Your task to perform on an android device: Go to location settings Image 0: 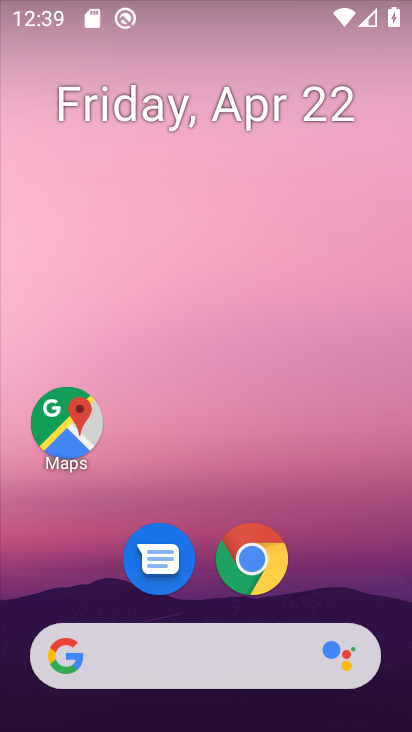
Step 0: drag from (206, 596) to (235, 122)
Your task to perform on an android device: Go to location settings Image 1: 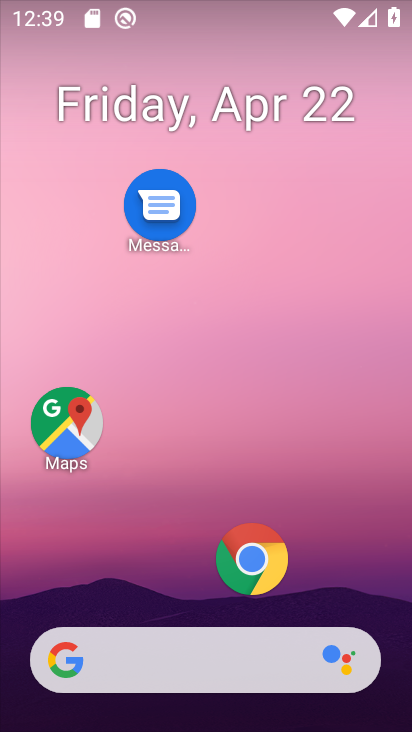
Step 1: drag from (332, 597) to (353, 86)
Your task to perform on an android device: Go to location settings Image 2: 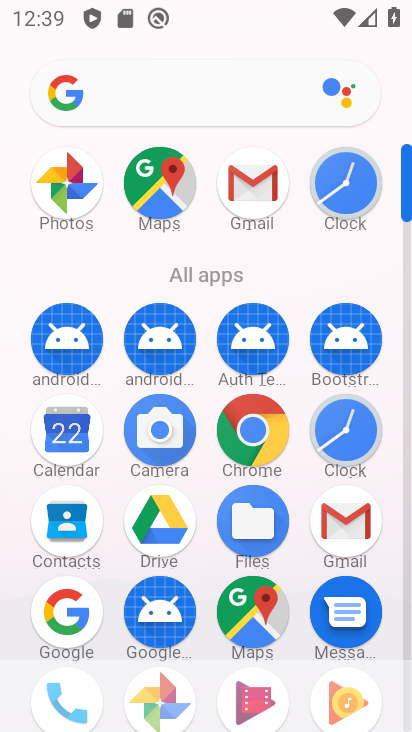
Step 2: drag from (206, 562) to (221, 116)
Your task to perform on an android device: Go to location settings Image 3: 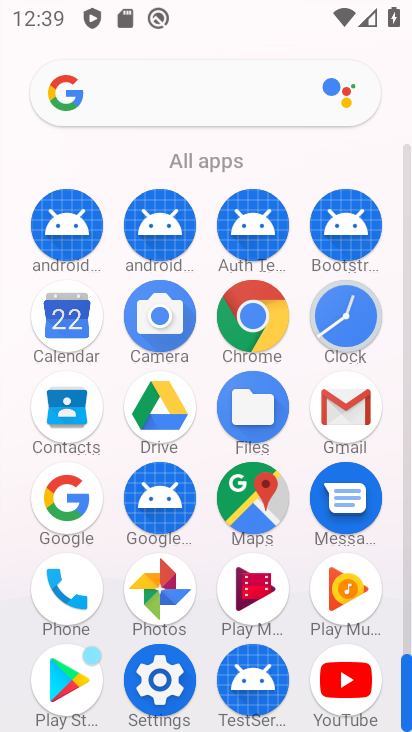
Step 3: click (158, 672)
Your task to perform on an android device: Go to location settings Image 4: 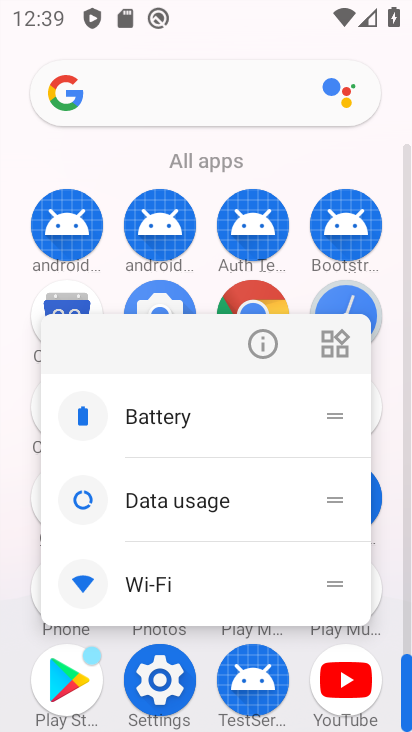
Step 4: click (252, 157)
Your task to perform on an android device: Go to location settings Image 5: 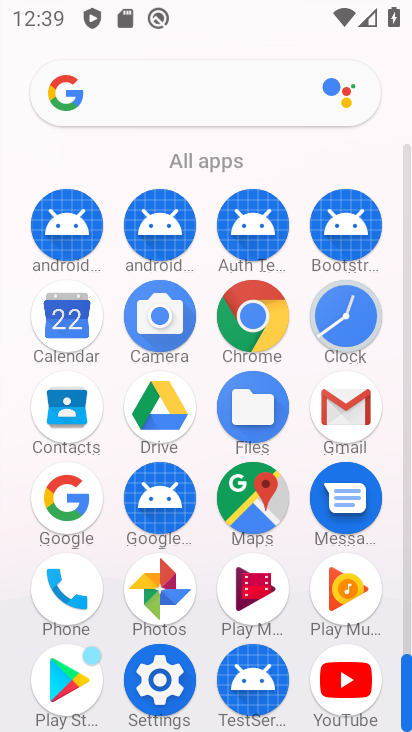
Step 5: click (256, 492)
Your task to perform on an android device: Go to location settings Image 6: 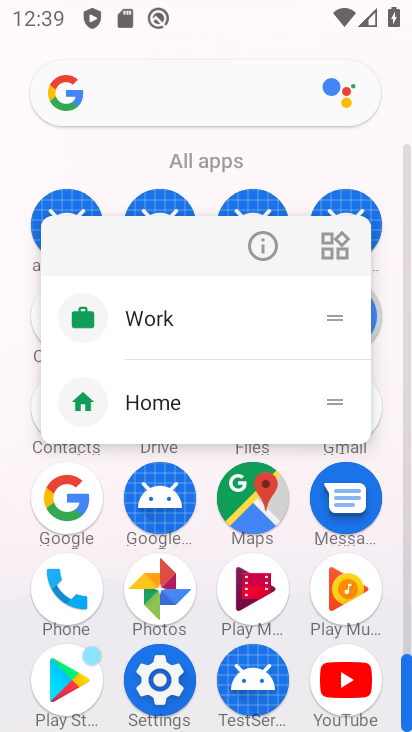
Step 6: click (253, 496)
Your task to perform on an android device: Go to location settings Image 7: 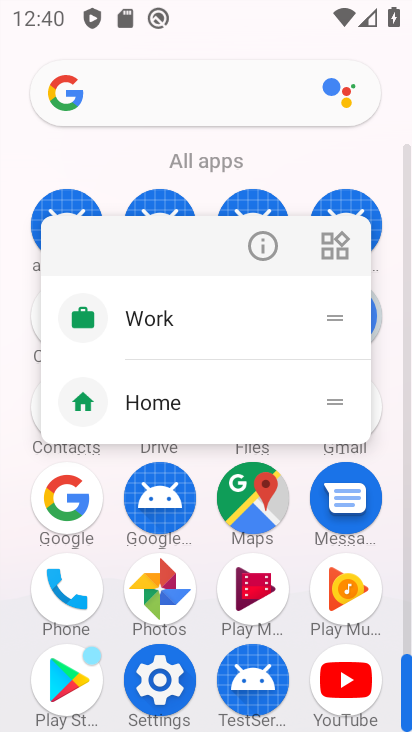
Step 7: click (253, 496)
Your task to perform on an android device: Go to location settings Image 8: 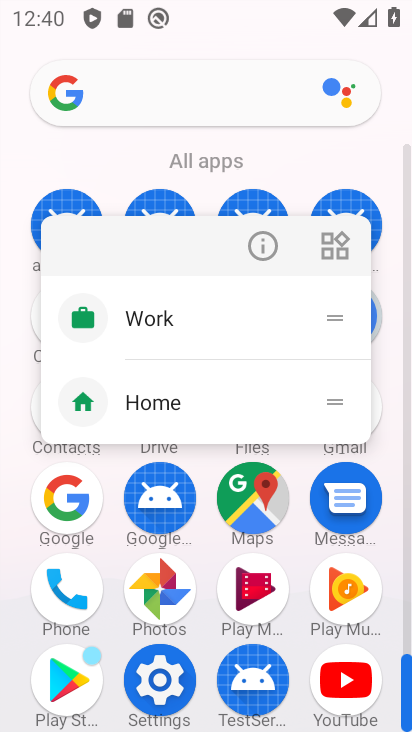
Step 8: click (253, 495)
Your task to perform on an android device: Go to location settings Image 9: 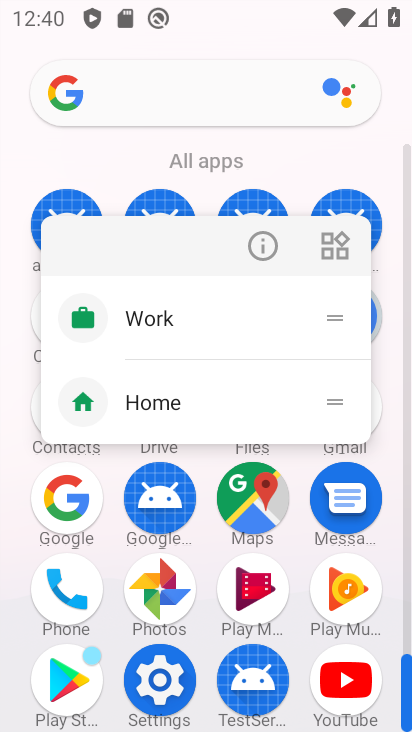
Step 9: click (388, 548)
Your task to perform on an android device: Go to location settings Image 10: 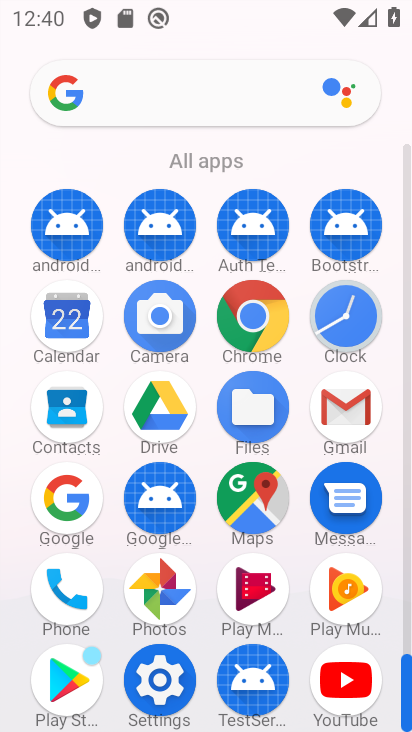
Step 10: click (253, 492)
Your task to perform on an android device: Go to location settings Image 11: 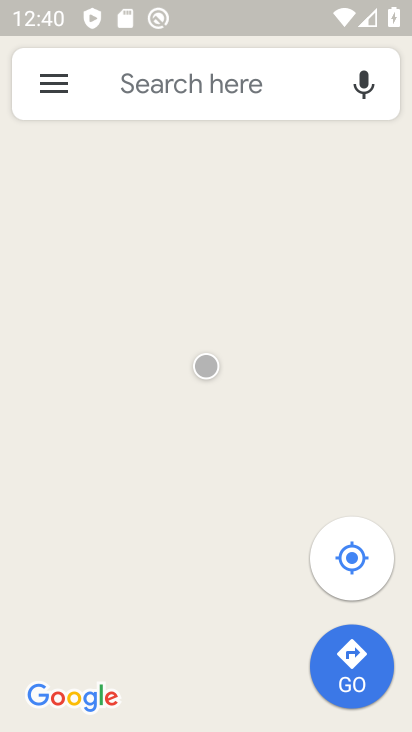
Step 11: click (47, 89)
Your task to perform on an android device: Go to location settings Image 12: 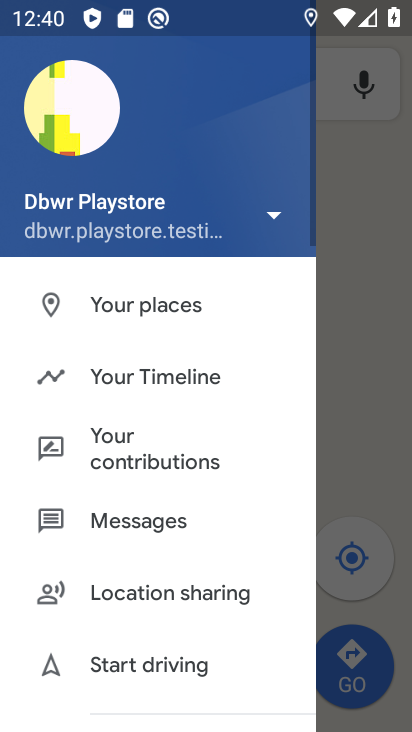
Step 12: drag from (148, 634) to (185, 143)
Your task to perform on an android device: Go to location settings Image 13: 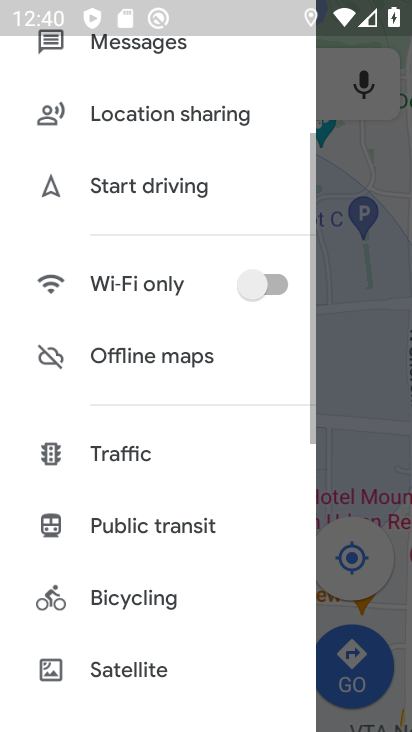
Step 13: drag from (133, 626) to (147, 151)
Your task to perform on an android device: Go to location settings Image 14: 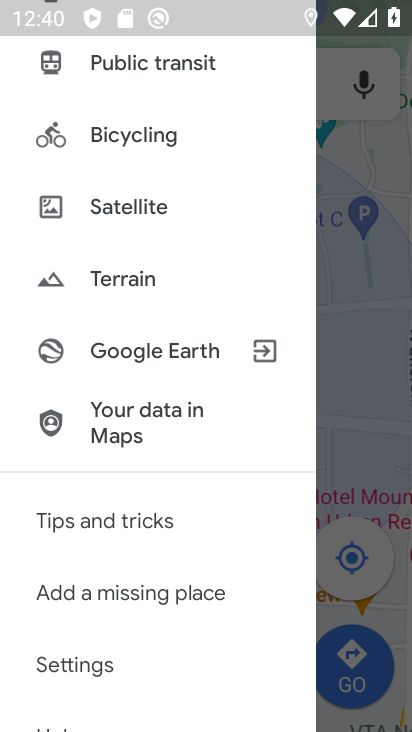
Step 14: click (127, 660)
Your task to perform on an android device: Go to location settings Image 15: 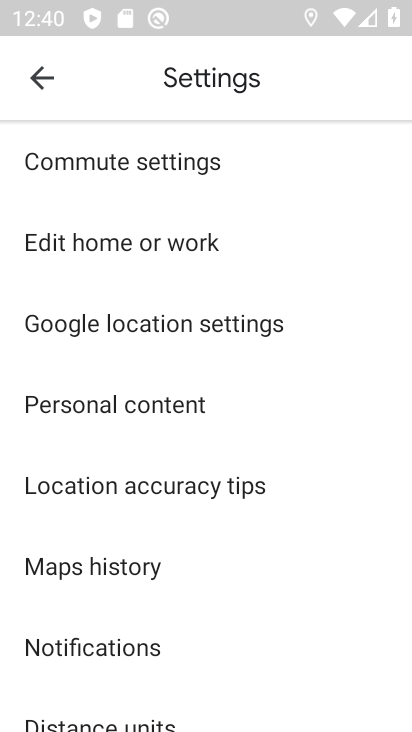
Step 15: task complete